Your task to perform on an android device: set an alarm Image 0: 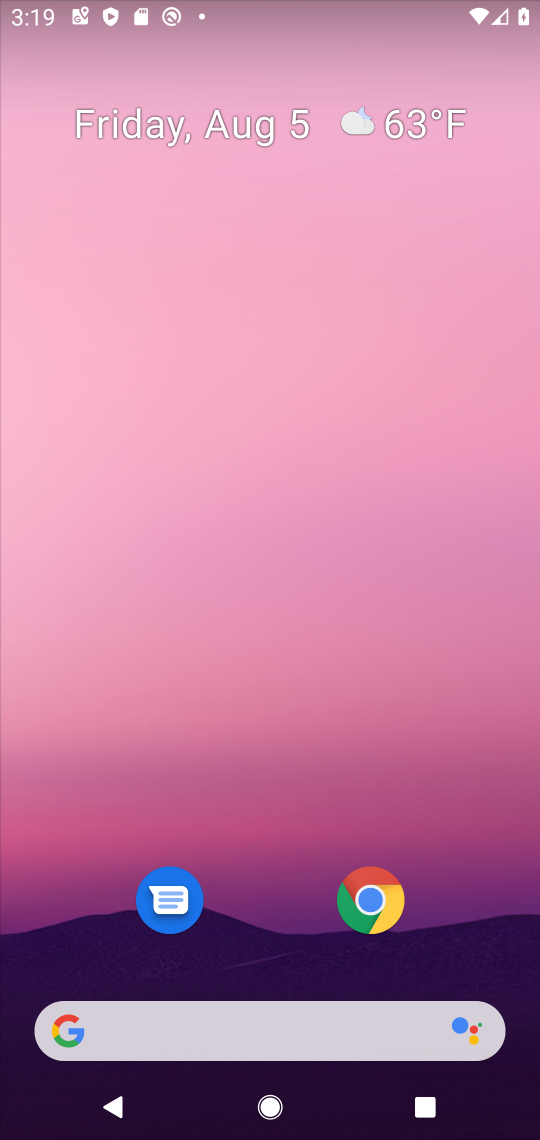
Step 0: drag from (244, 896) to (378, 11)
Your task to perform on an android device: set an alarm Image 1: 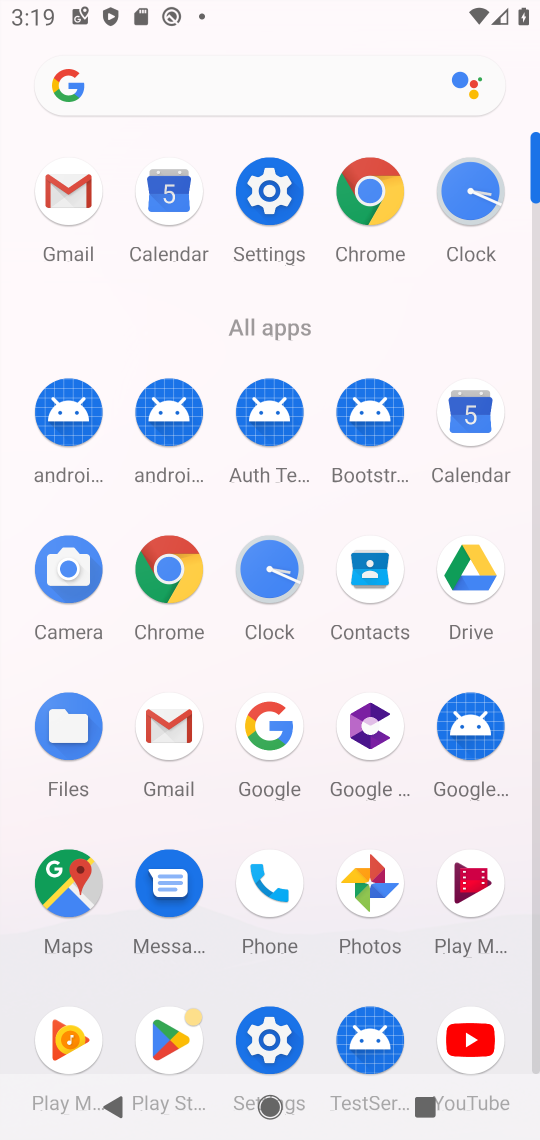
Step 1: click (465, 189)
Your task to perform on an android device: set an alarm Image 2: 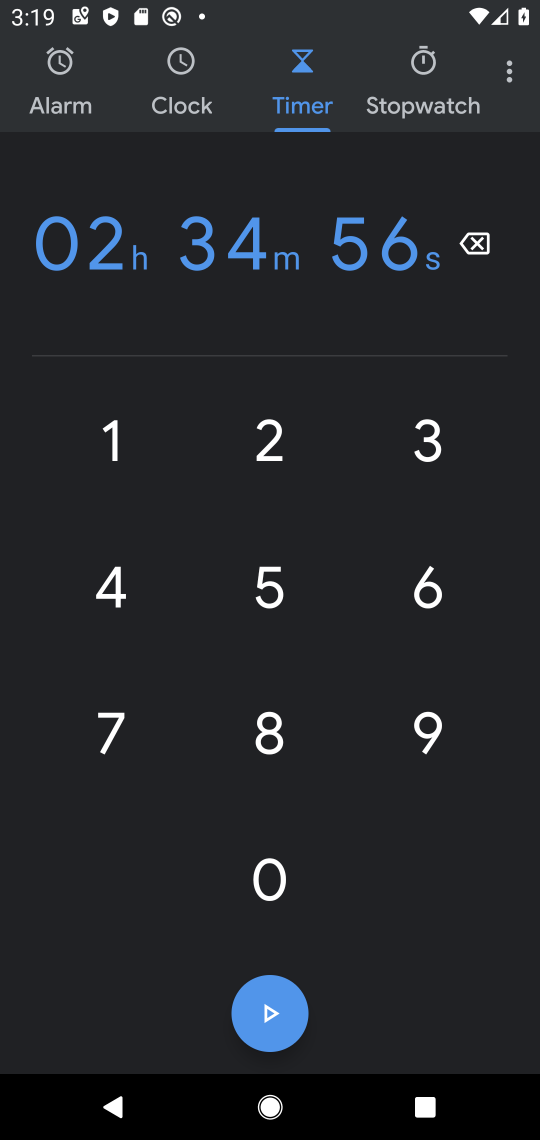
Step 2: click (66, 93)
Your task to perform on an android device: set an alarm Image 3: 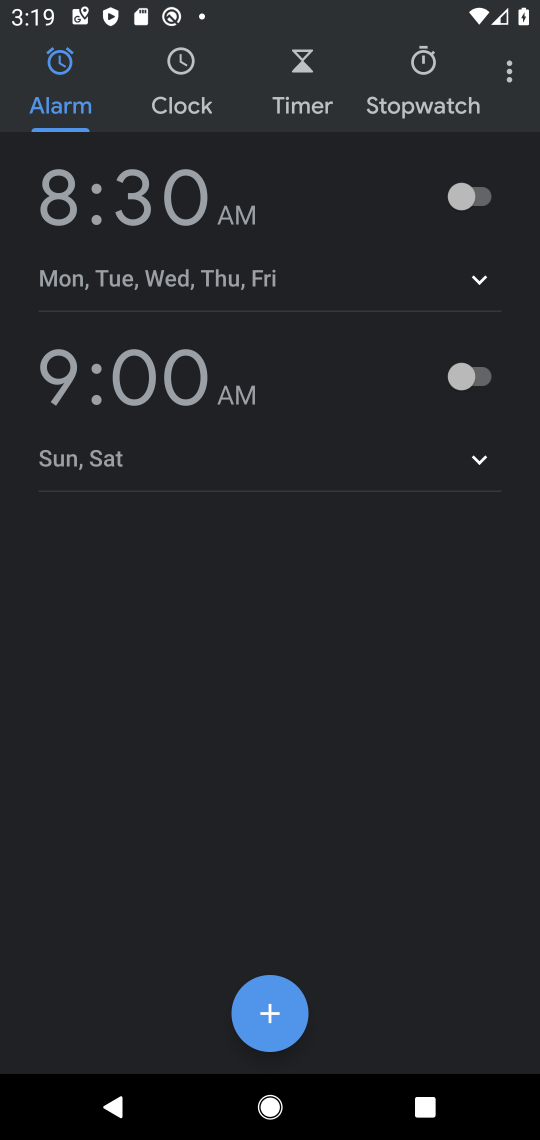
Step 3: click (448, 194)
Your task to perform on an android device: set an alarm Image 4: 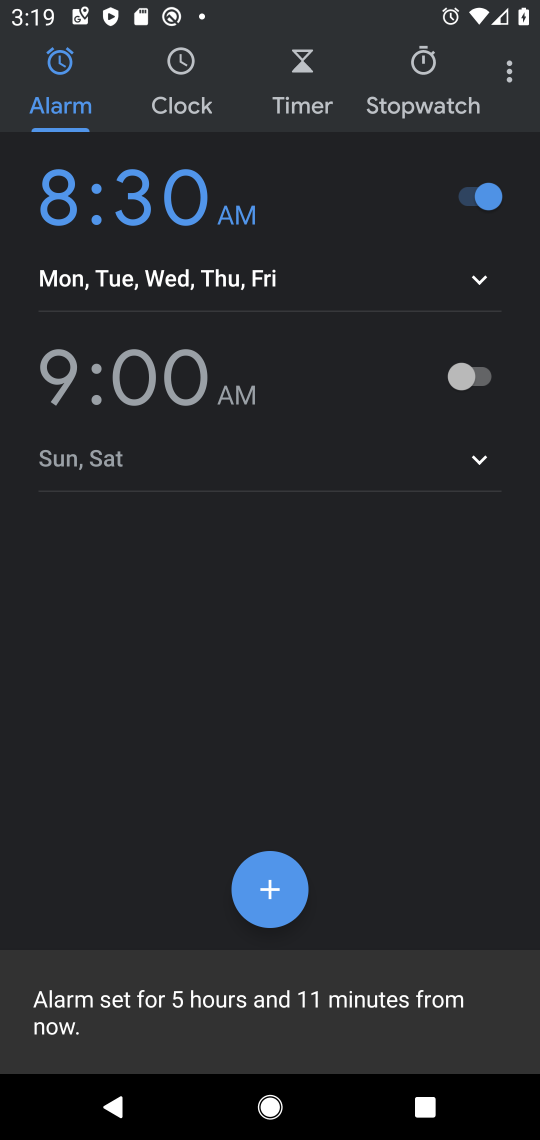
Step 4: task complete